Your task to perform on an android device: Show me productivity apps on the Play Store Image 0: 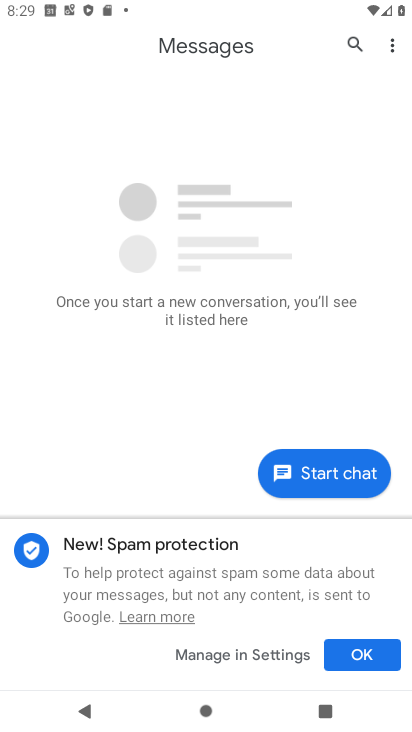
Step 0: press home button
Your task to perform on an android device: Show me productivity apps on the Play Store Image 1: 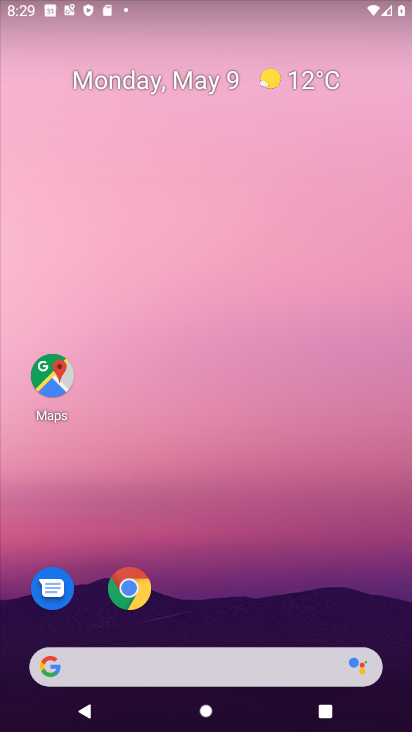
Step 1: drag from (214, 667) to (314, 63)
Your task to perform on an android device: Show me productivity apps on the Play Store Image 2: 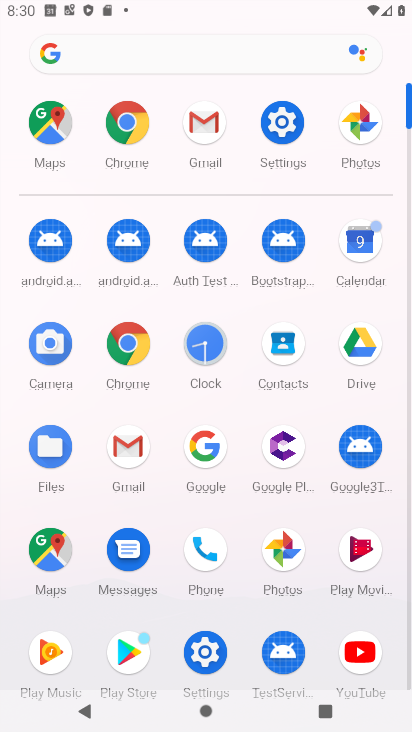
Step 2: click (128, 654)
Your task to perform on an android device: Show me productivity apps on the Play Store Image 3: 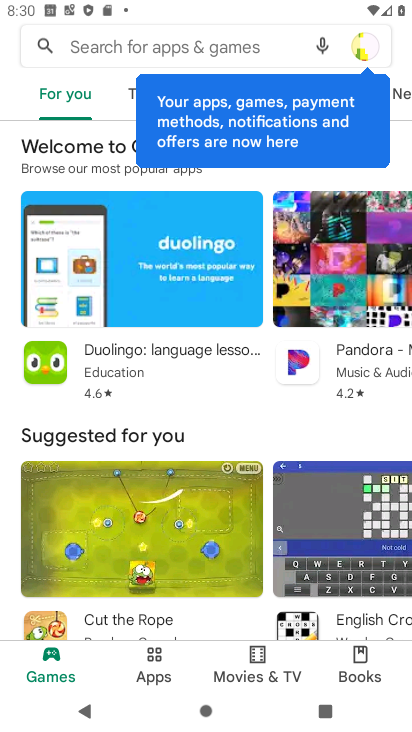
Step 3: click (161, 661)
Your task to perform on an android device: Show me productivity apps on the Play Store Image 4: 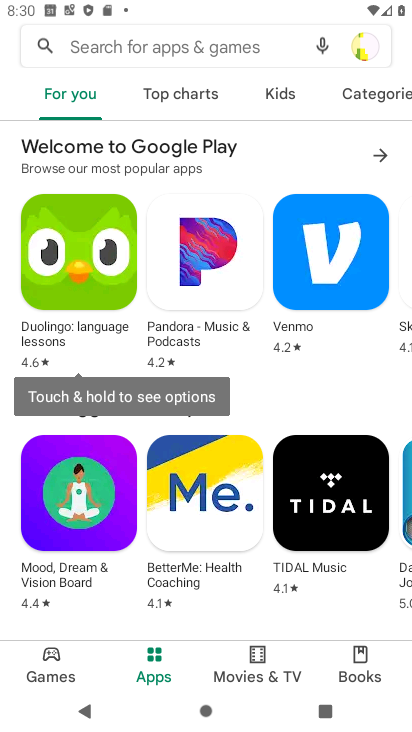
Step 4: click (378, 93)
Your task to perform on an android device: Show me productivity apps on the Play Store Image 5: 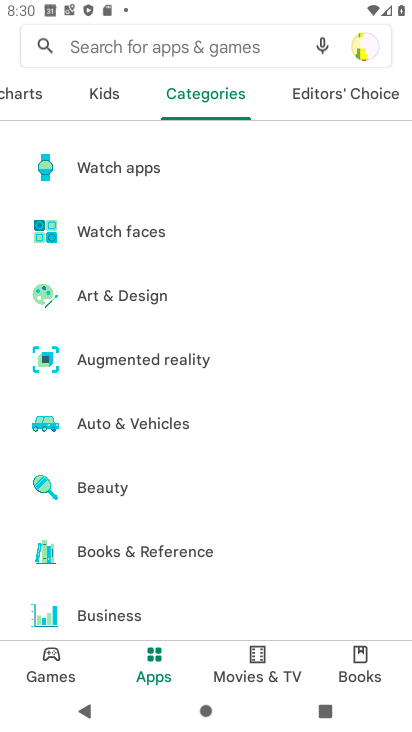
Step 5: drag from (180, 589) to (268, 7)
Your task to perform on an android device: Show me productivity apps on the Play Store Image 6: 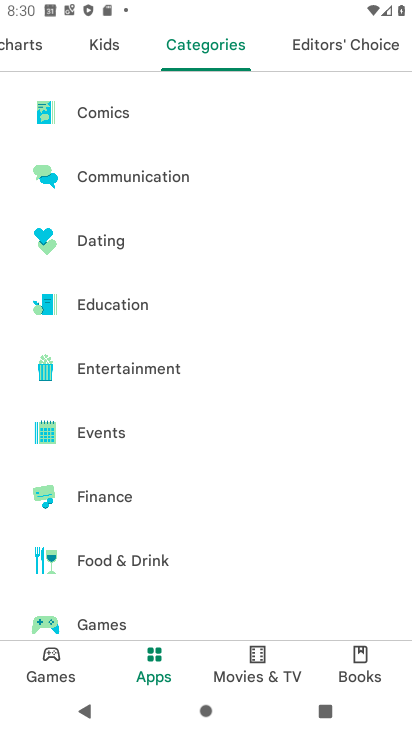
Step 6: drag from (207, 577) to (318, 73)
Your task to perform on an android device: Show me productivity apps on the Play Store Image 7: 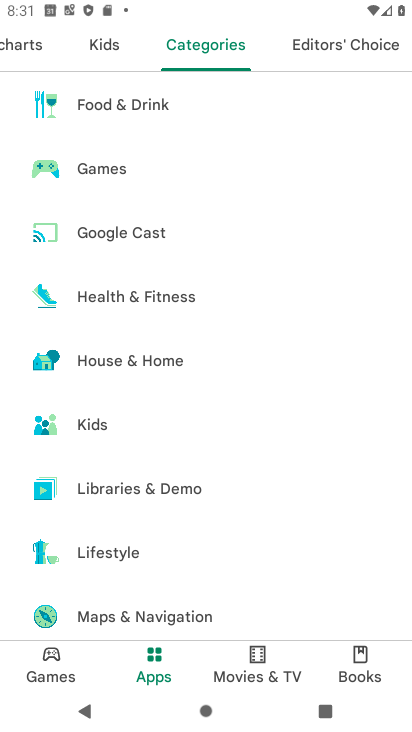
Step 7: drag from (219, 564) to (313, 61)
Your task to perform on an android device: Show me productivity apps on the Play Store Image 8: 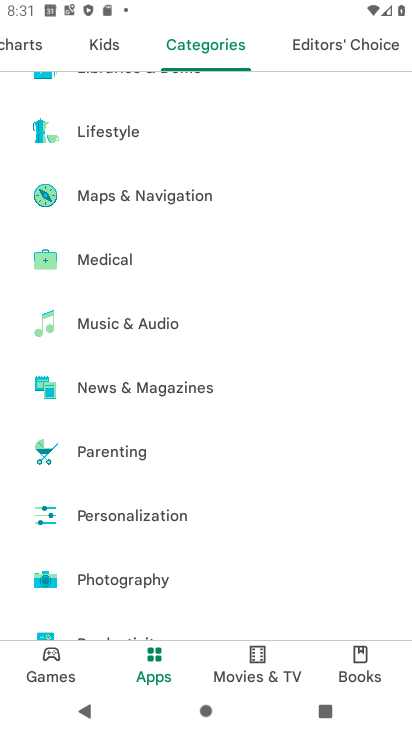
Step 8: drag from (169, 565) to (234, 94)
Your task to perform on an android device: Show me productivity apps on the Play Store Image 9: 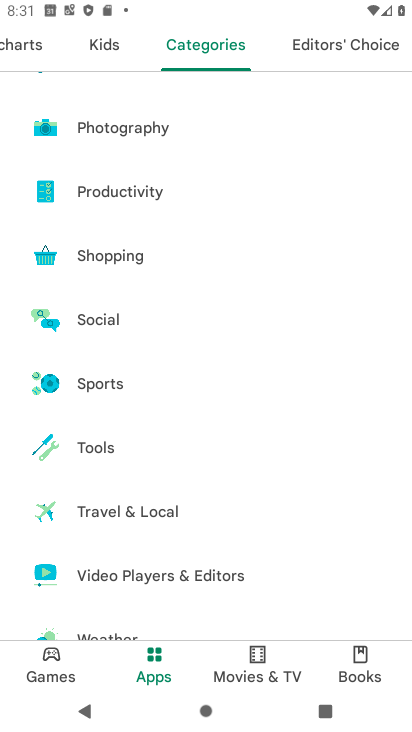
Step 9: click (129, 195)
Your task to perform on an android device: Show me productivity apps on the Play Store Image 10: 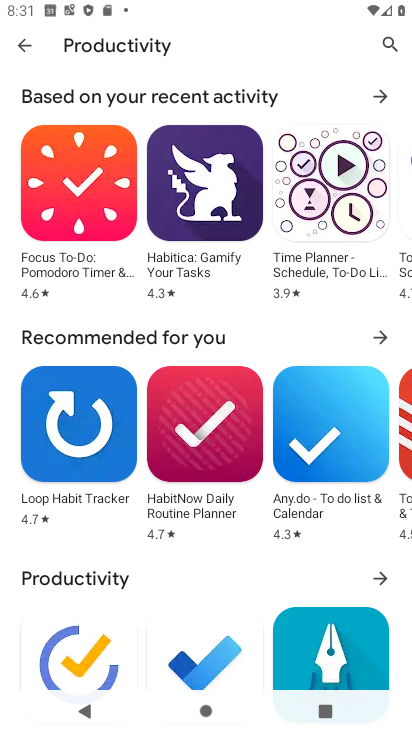
Step 10: task complete